Your task to perform on an android device: Open maps Image 0: 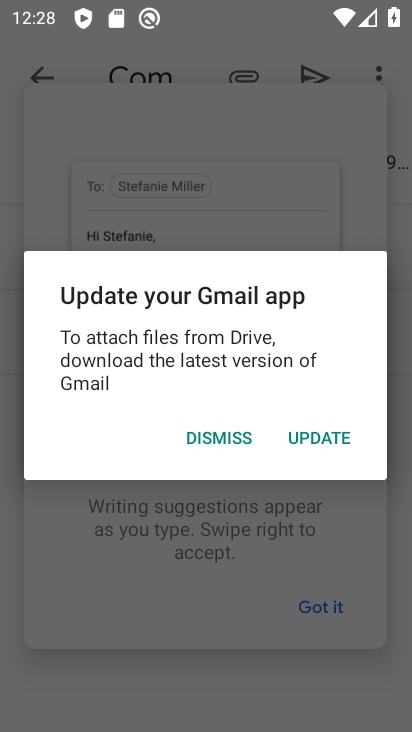
Step 0: press home button
Your task to perform on an android device: Open maps Image 1: 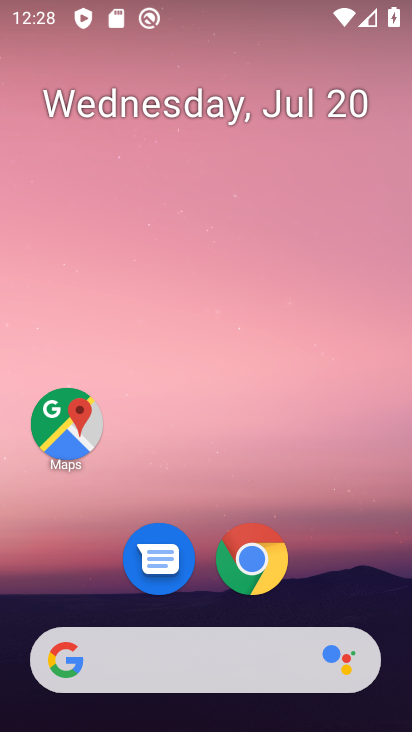
Step 1: drag from (361, 580) to (363, 169)
Your task to perform on an android device: Open maps Image 2: 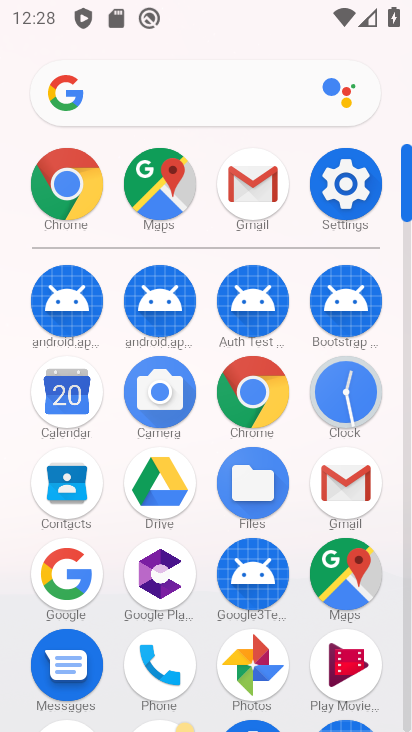
Step 2: click (360, 576)
Your task to perform on an android device: Open maps Image 3: 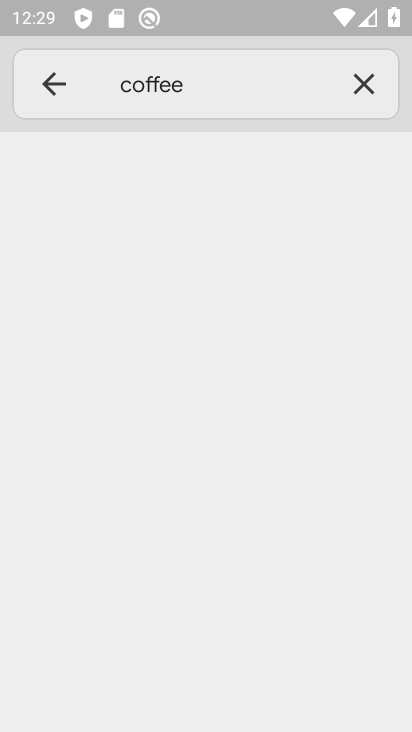
Step 3: task complete